Your task to perform on an android device: See recent photos Image 0: 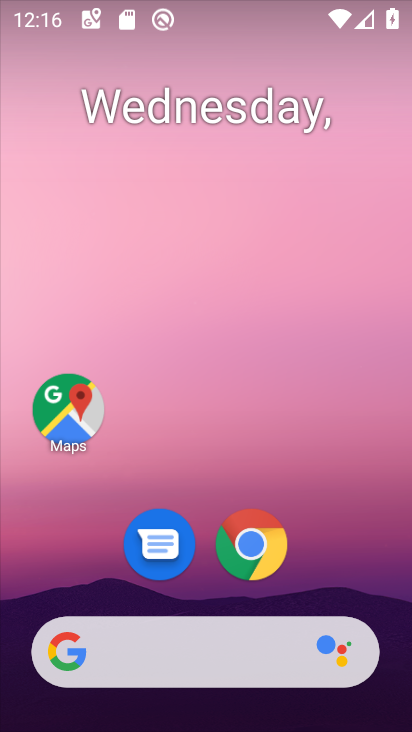
Step 0: drag from (219, 472) to (221, 129)
Your task to perform on an android device: See recent photos Image 1: 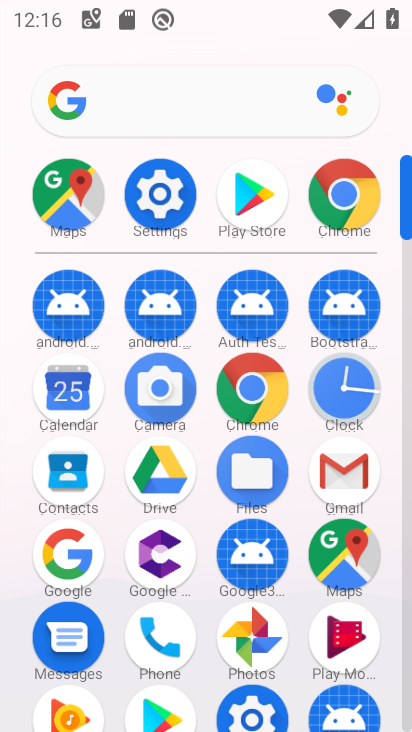
Step 1: drag from (197, 167) to (204, 25)
Your task to perform on an android device: See recent photos Image 2: 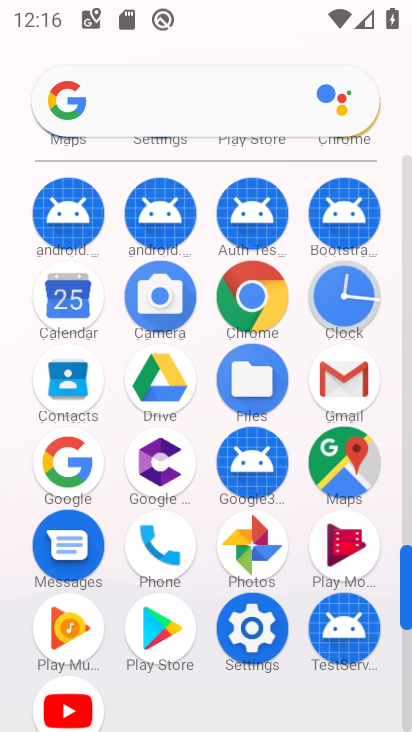
Step 2: drag from (201, 328) to (210, 446)
Your task to perform on an android device: See recent photos Image 3: 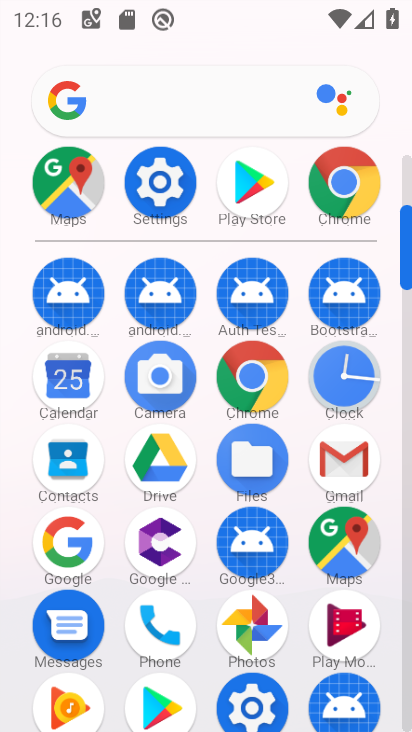
Step 3: click (241, 615)
Your task to perform on an android device: See recent photos Image 4: 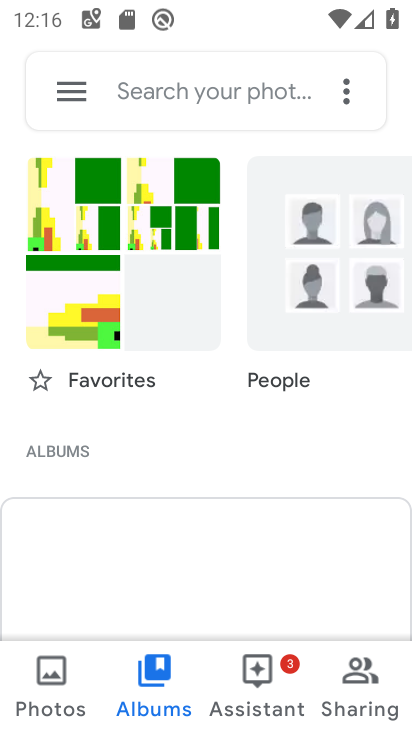
Step 4: click (64, 688)
Your task to perform on an android device: See recent photos Image 5: 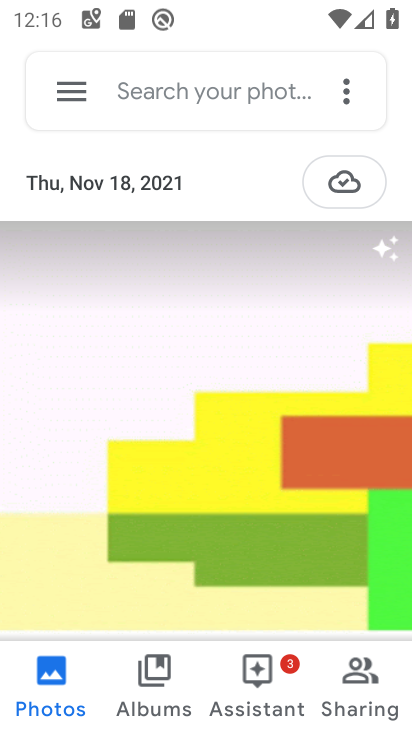
Step 5: task complete